Your task to perform on an android device: Open CNN.com Image 0: 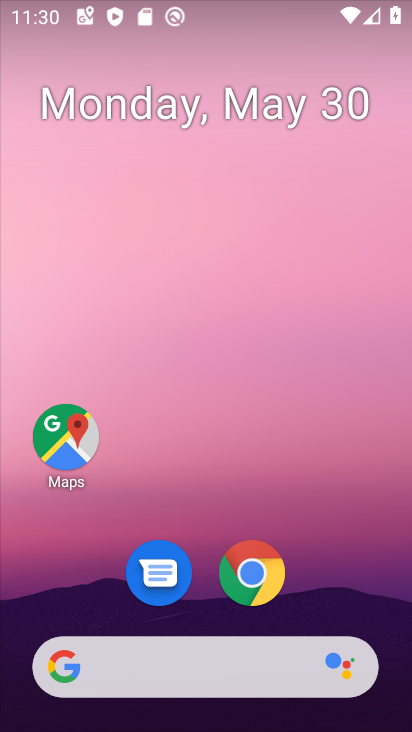
Step 0: click (179, 666)
Your task to perform on an android device: Open CNN.com Image 1: 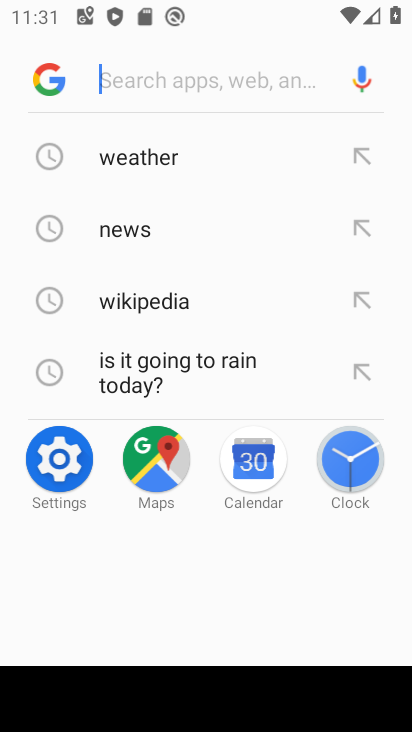
Step 1: type "cnn.com"
Your task to perform on an android device: Open CNN.com Image 2: 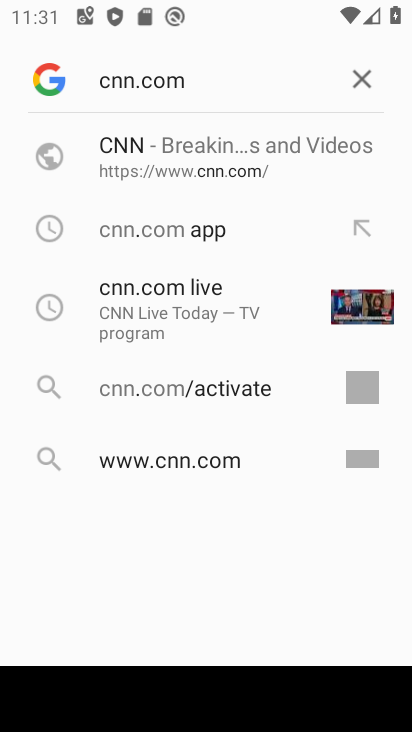
Step 2: click (214, 123)
Your task to perform on an android device: Open CNN.com Image 3: 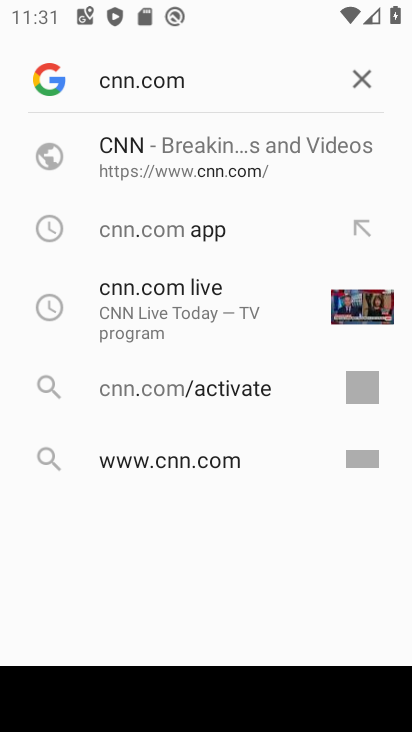
Step 3: click (215, 155)
Your task to perform on an android device: Open CNN.com Image 4: 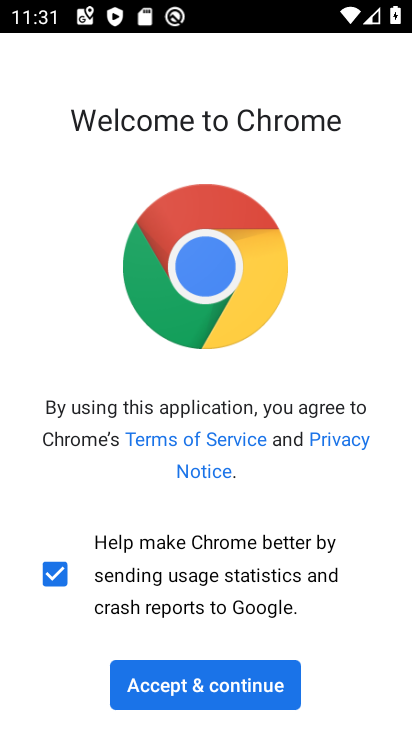
Step 4: click (241, 690)
Your task to perform on an android device: Open CNN.com Image 5: 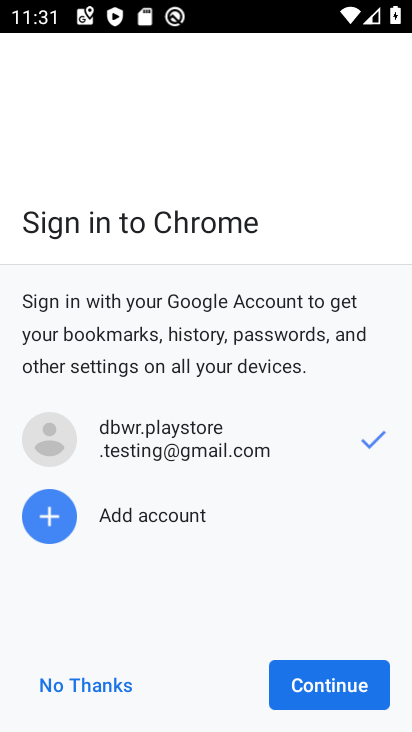
Step 5: click (340, 692)
Your task to perform on an android device: Open CNN.com Image 6: 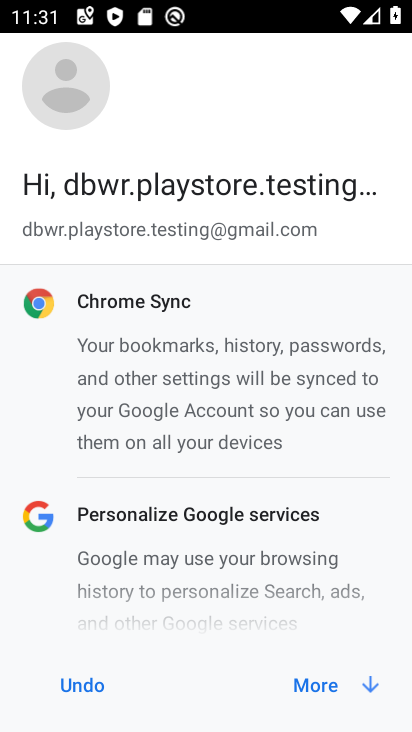
Step 6: click (321, 682)
Your task to perform on an android device: Open CNN.com Image 7: 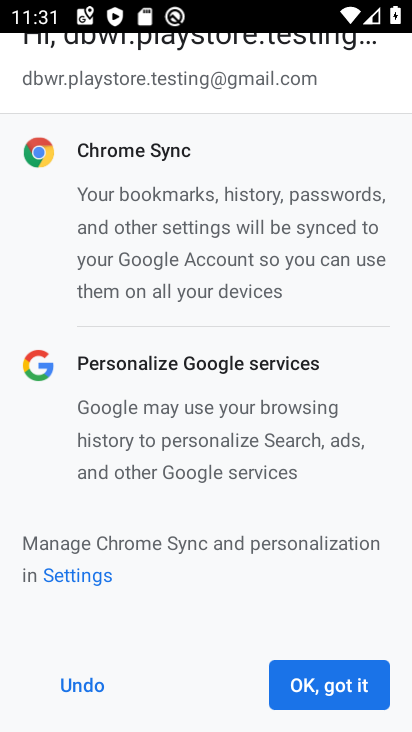
Step 7: click (317, 672)
Your task to perform on an android device: Open CNN.com Image 8: 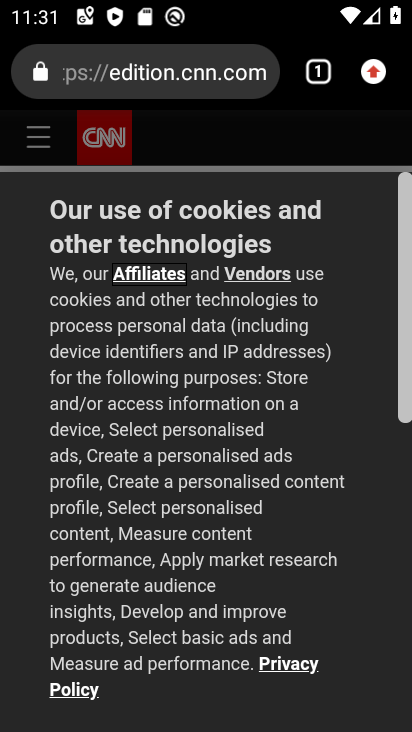
Step 8: task complete